Your task to perform on an android device: turn off picture-in-picture Image 0: 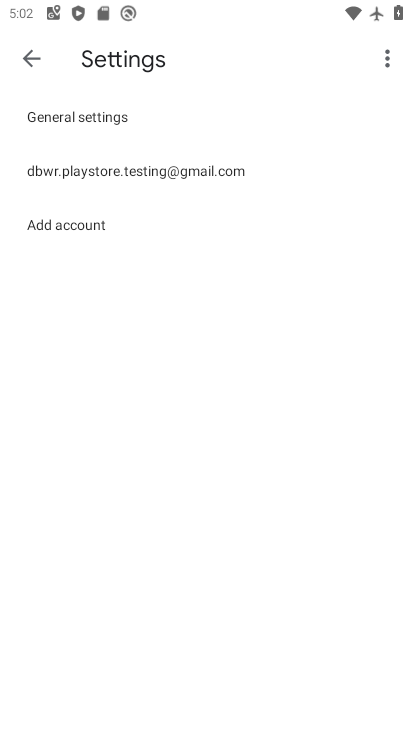
Step 0: press home button
Your task to perform on an android device: turn off picture-in-picture Image 1: 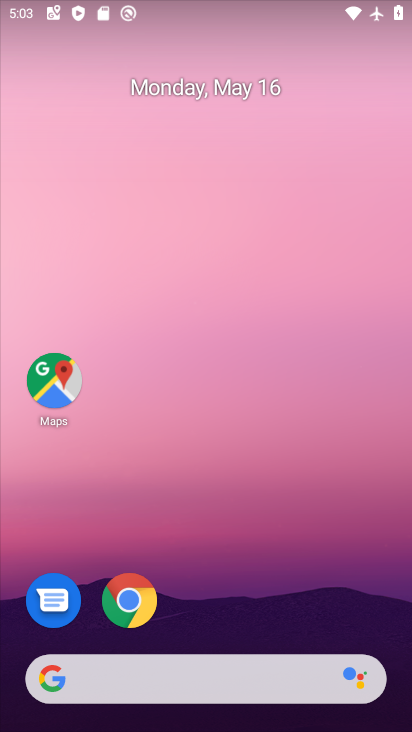
Step 1: drag from (181, 641) to (168, 213)
Your task to perform on an android device: turn off picture-in-picture Image 2: 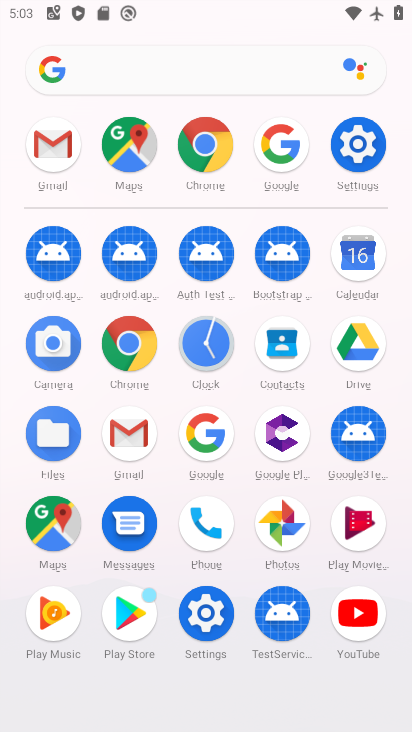
Step 2: click (349, 152)
Your task to perform on an android device: turn off picture-in-picture Image 3: 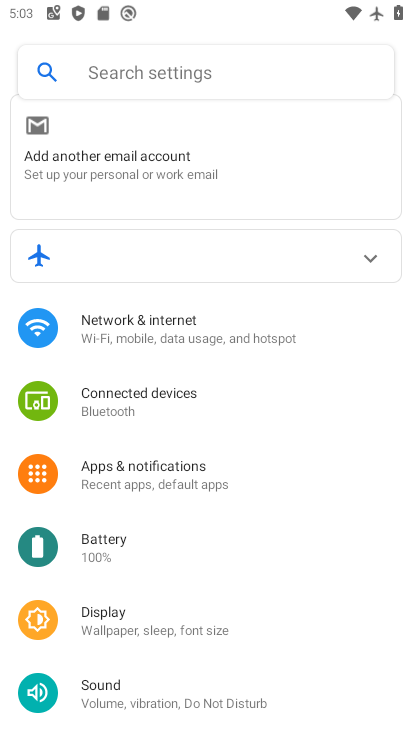
Step 3: click (199, 481)
Your task to perform on an android device: turn off picture-in-picture Image 4: 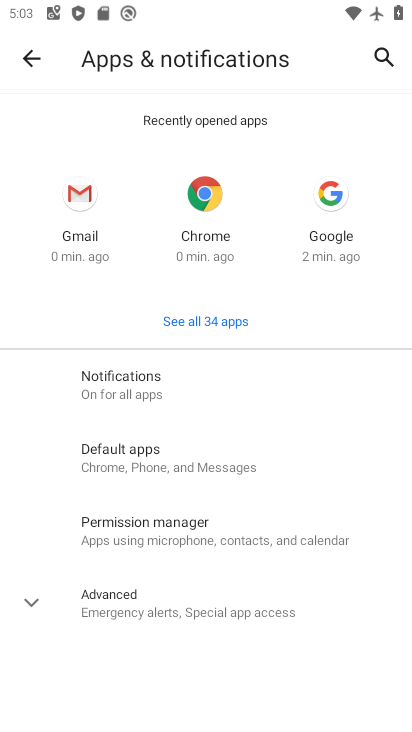
Step 4: click (140, 595)
Your task to perform on an android device: turn off picture-in-picture Image 5: 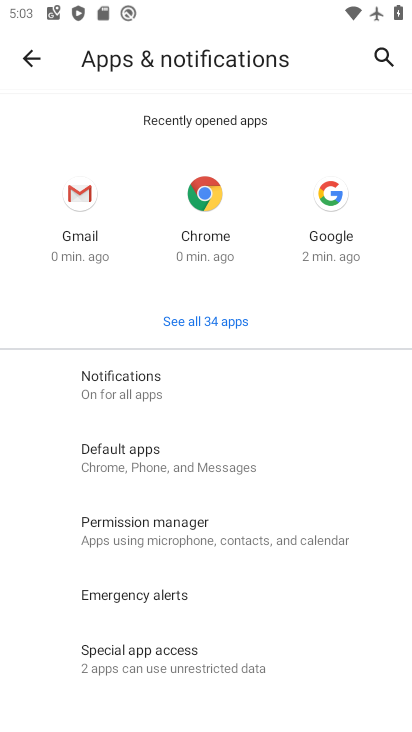
Step 5: drag from (154, 586) to (165, 459)
Your task to perform on an android device: turn off picture-in-picture Image 6: 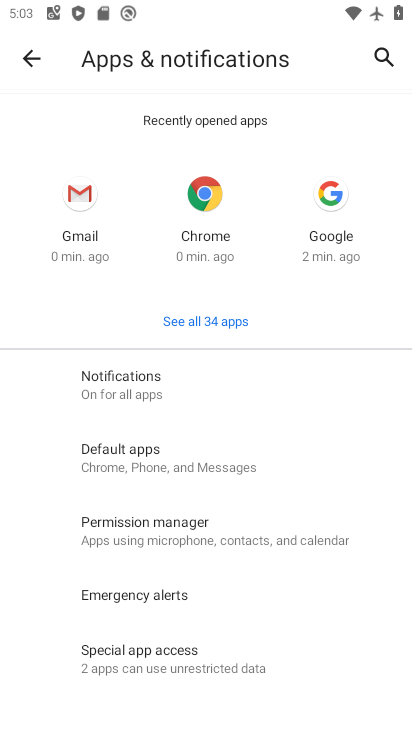
Step 6: click (139, 379)
Your task to perform on an android device: turn off picture-in-picture Image 7: 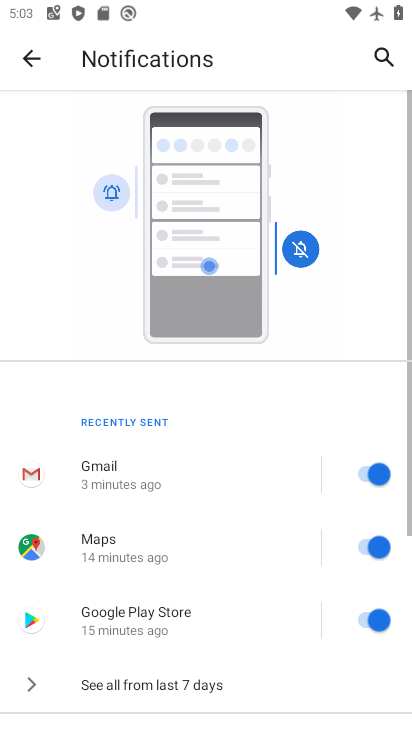
Step 7: drag from (218, 510) to (200, 114)
Your task to perform on an android device: turn off picture-in-picture Image 8: 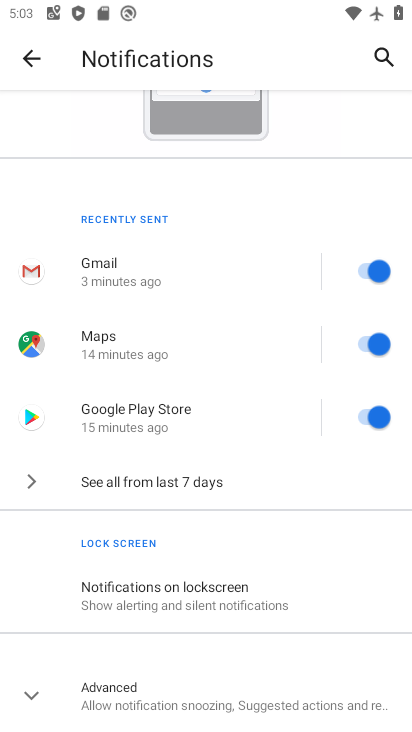
Step 8: click (200, 688)
Your task to perform on an android device: turn off picture-in-picture Image 9: 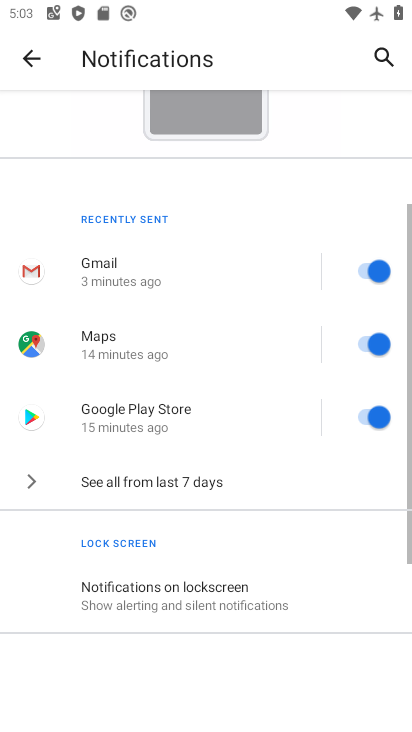
Step 9: task complete